Your task to perform on an android device: Go to privacy settings Image 0: 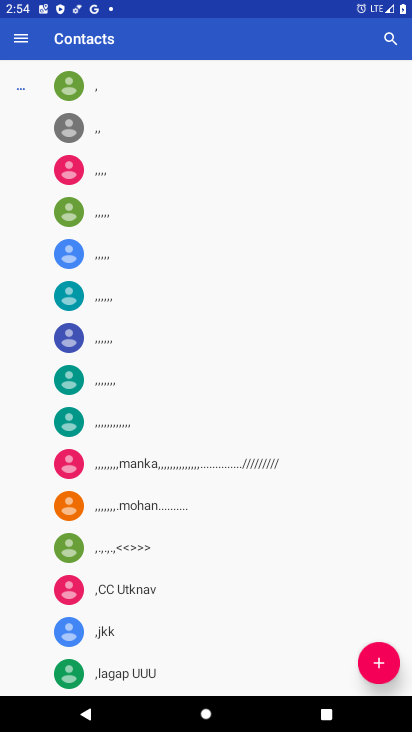
Step 0: press home button
Your task to perform on an android device: Go to privacy settings Image 1: 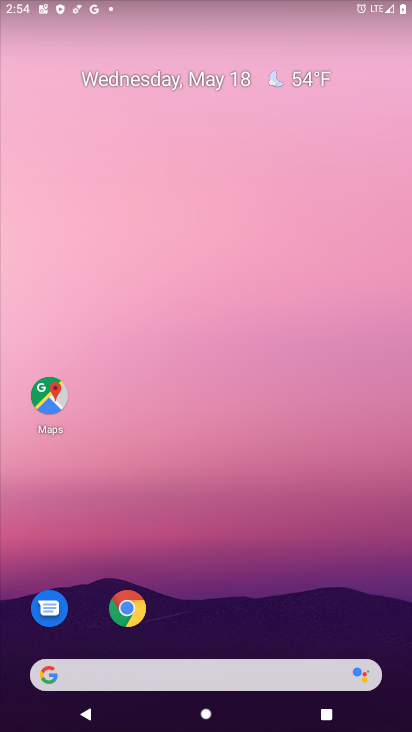
Step 1: drag from (255, 618) to (303, 4)
Your task to perform on an android device: Go to privacy settings Image 2: 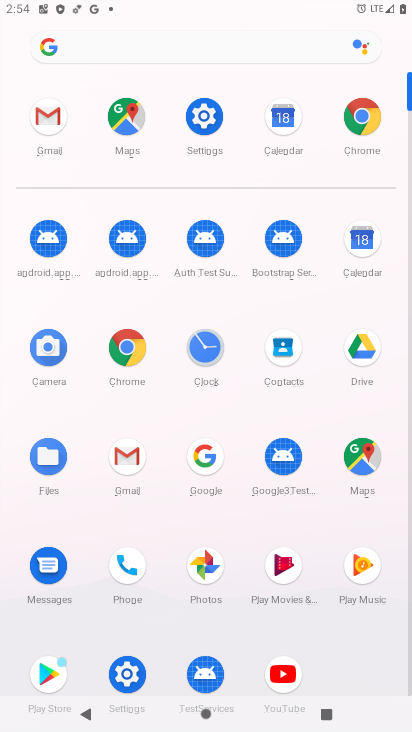
Step 2: click (200, 126)
Your task to perform on an android device: Go to privacy settings Image 3: 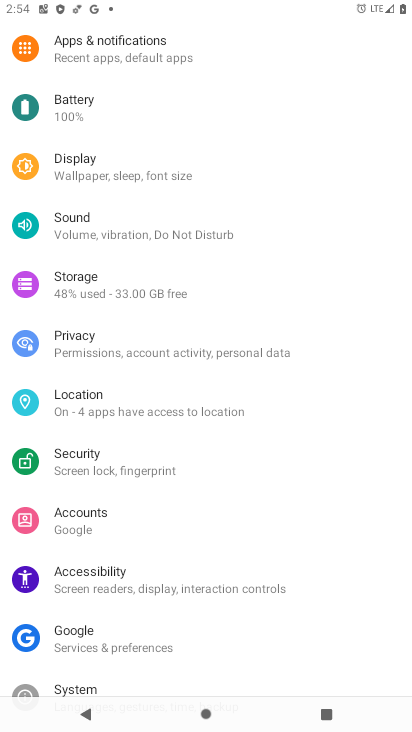
Step 3: click (84, 337)
Your task to perform on an android device: Go to privacy settings Image 4: 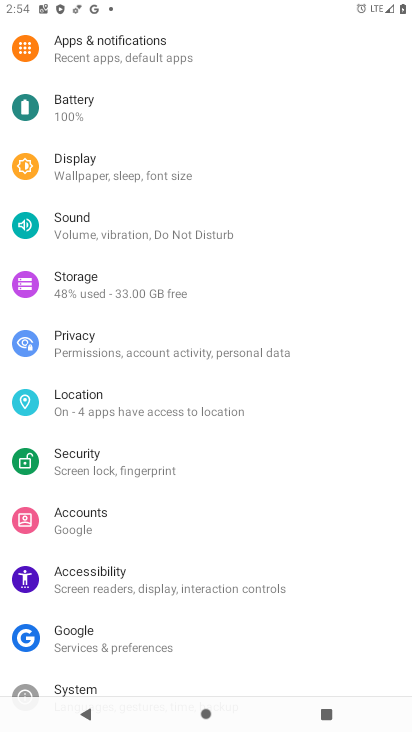
Step 4: click (75, 350)
Your task to perform on an android device: Go to privacy settings Image 5: 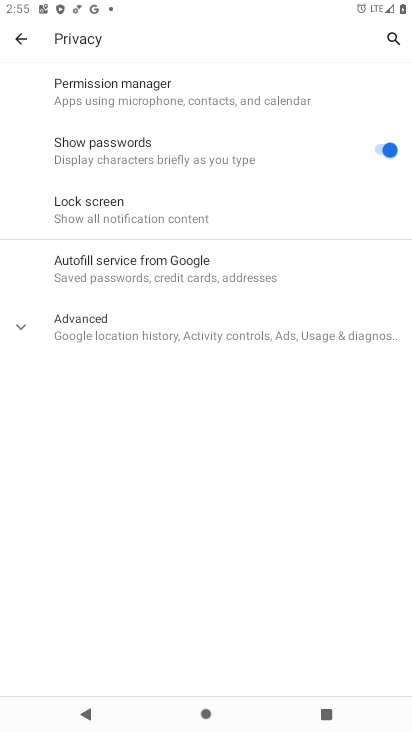
Step 5: task complete